Your task to perform on an android device: Do I have any events this weekend? Image 0: 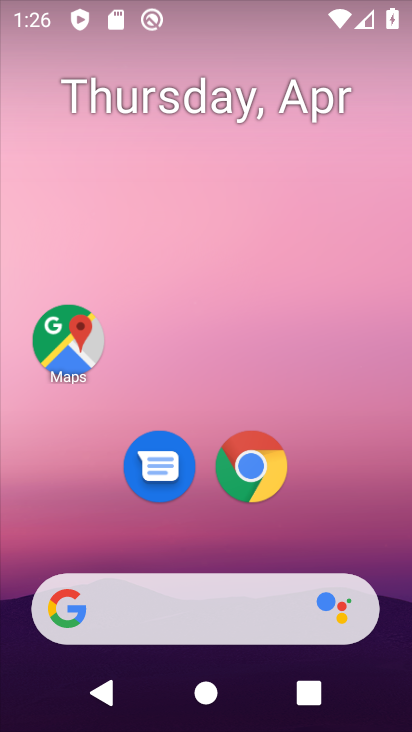
Step 0: drag from (363, 542) to (289, 49)
Your task to perform on an android device: Do I have any events this weekend? Image 1: 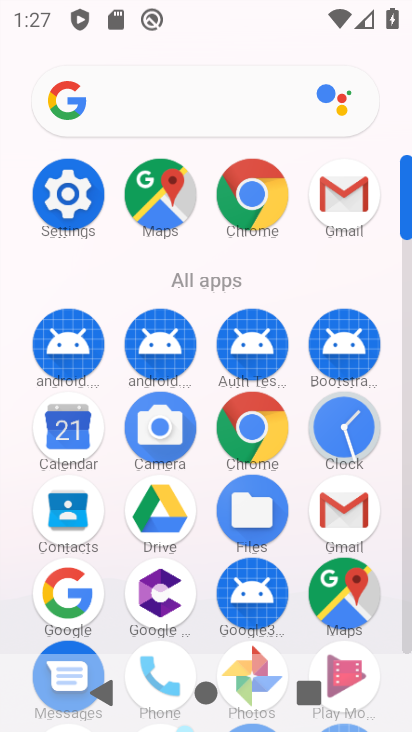
Step 1: click (72, 421)
Your task to perform on an android device: Do I have any events this weekend? Image 2: 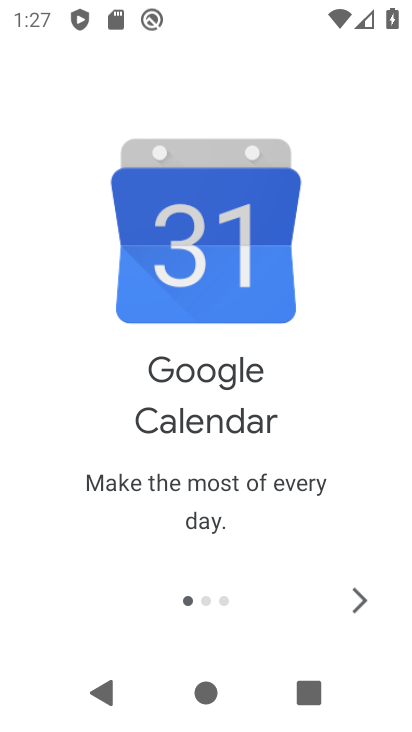
Step 2: click (349, 598)
Your task to perform on an android device: Do I have any events this weekend? Image 3: 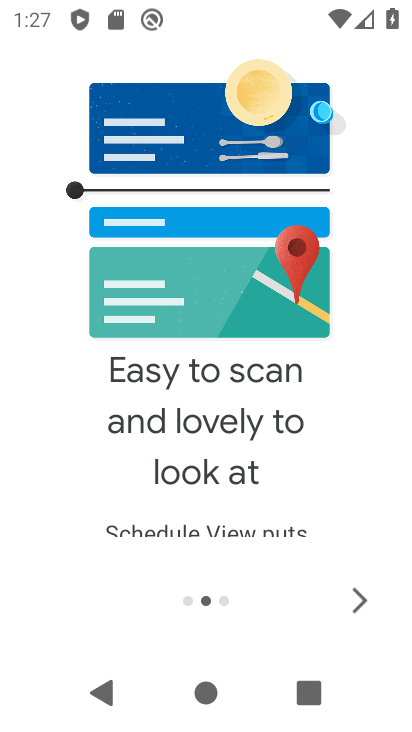
Step 3: click (357, 600)
Your task to perform on an android device: Do I have any events this weekend? Image 4: 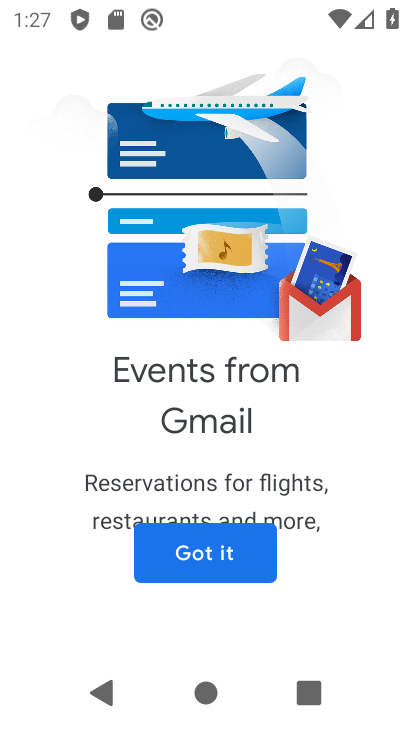
Step 4: click (203, 543)
Your task to perform on an android device: Do I have any events this weekend? Image 5: 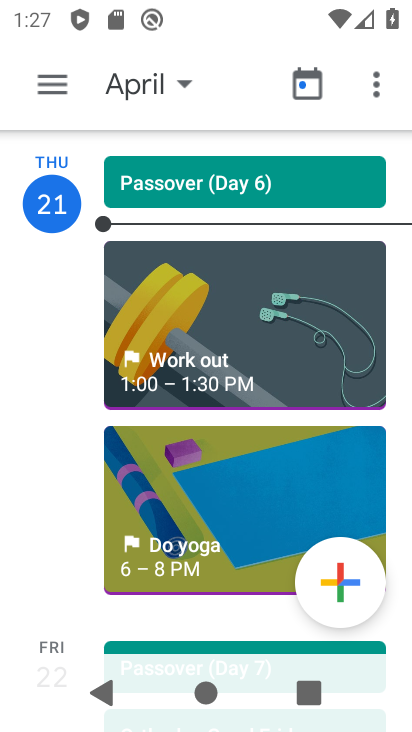
Step 5: click (56, 78)
Your task to perform on an android device: Do I have any events this weekend? Image 6: 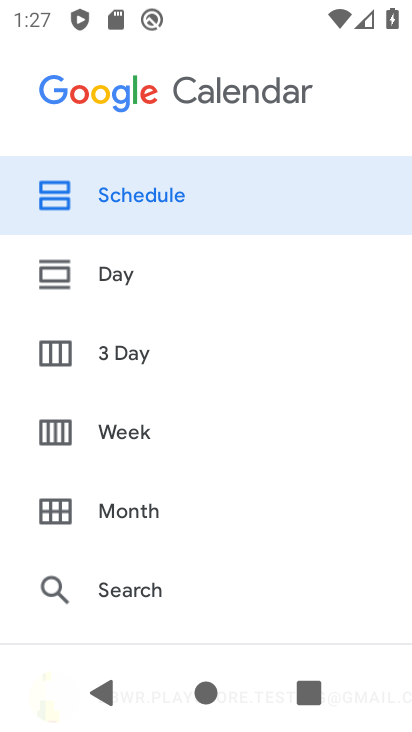
Step 6: drag from (209, 501) to (225, 152)
Your task to perform on an android device: Do I have any events this weekend? Image 7: 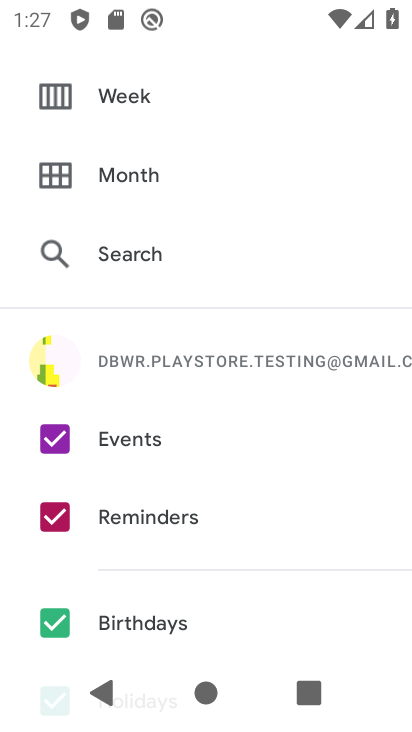
Step 7: drag from (225, 152) to (260, 71)
Your task to perform on an android device: Do I have any events this weekend? Image 8: 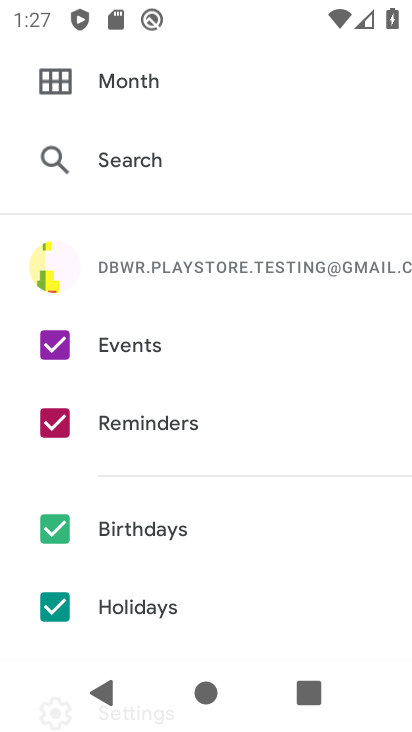
Step 8: click (51, 611)
Your task to perform on an android device: Do I have any events this weekend? Image 9: 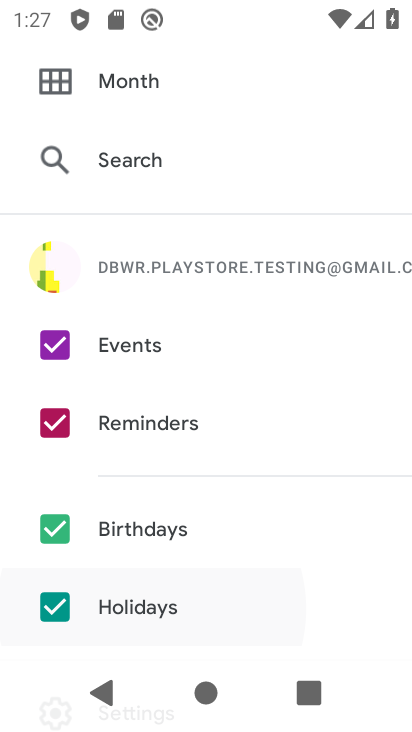
Step 9: click (49, 529)
Your task to perform on an android device: Do I have any events this weekend? Image 10: 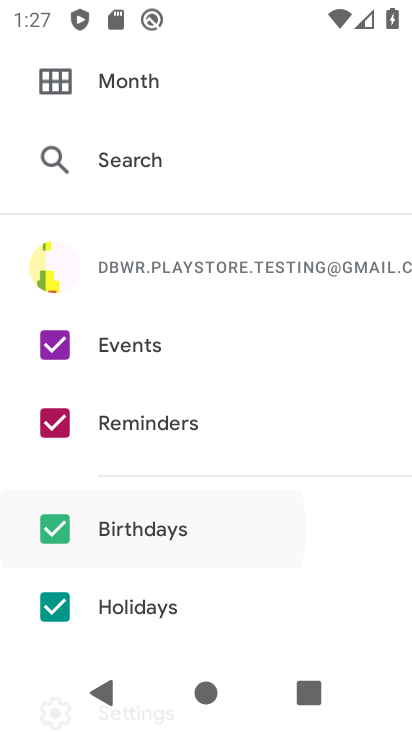
Step 10: click (57, 429)
Your task to perform on an android device: Do I have any events this weekend? Image 11: 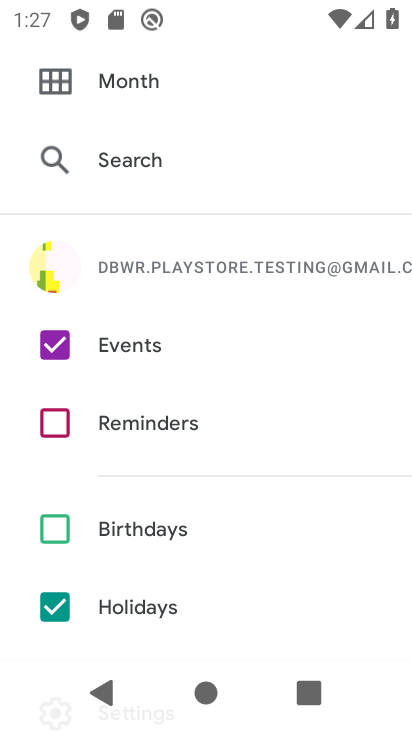
Step 11: click (45, 616)
Your task to perform on an android device: Do I have any events this weekend? Image 12: 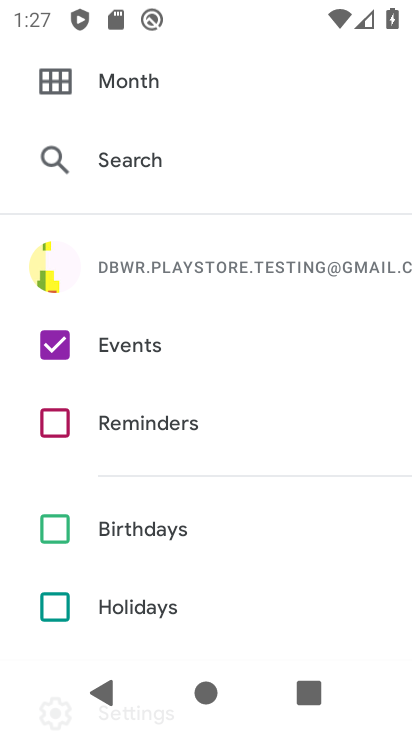
Step 12: drag from (265, 321) to (233, 608)
Your task to perform on an android device: Do I have any events this weekend? Image 13: 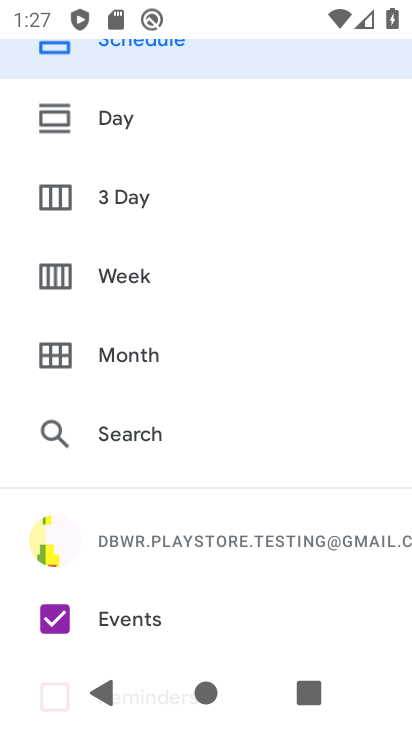
Step 13: drag from (231, 308) to (223, 586)
Your task to perform on an android device: Do I have any events this weekend? Image 14: 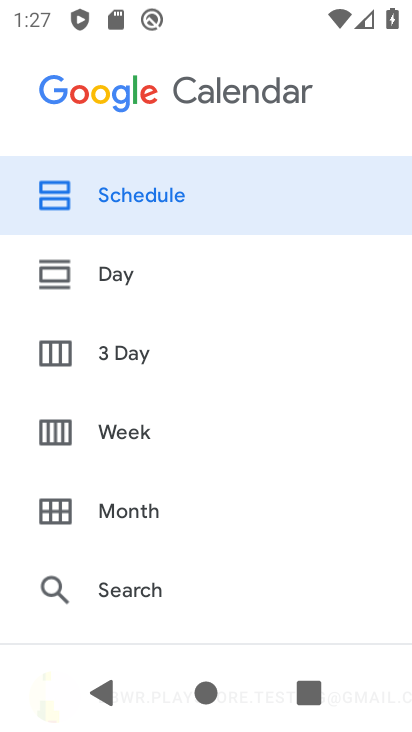
Step 14: click (171, 199)
Your task to perform on an android device: Do I have any events this weekend? Image 15: 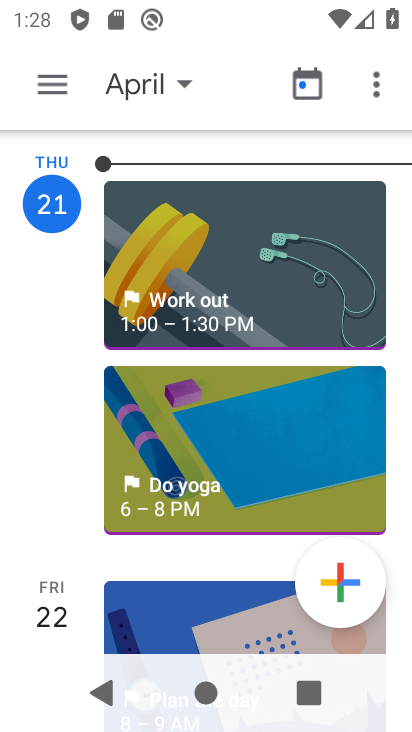
Step 15: drag from (211, 507) to (206, 215)
Your task to perform on an android device: Do I have any events this weekend? Image 16: 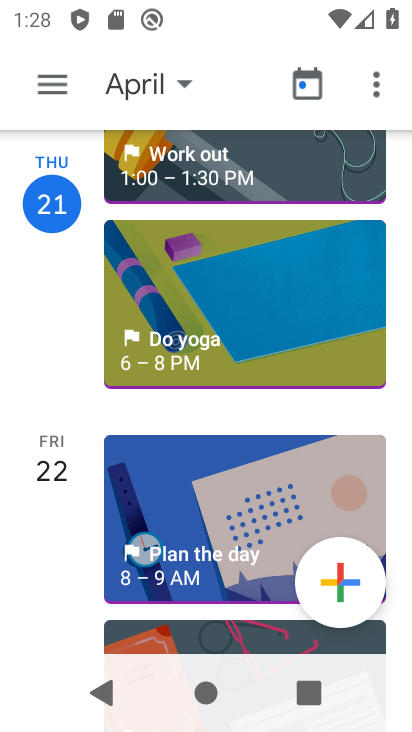
Step 16: drag from (234, 454) to (232, 188)
Your task to perform on an android device: Do I have any events this weekend? Image 17: 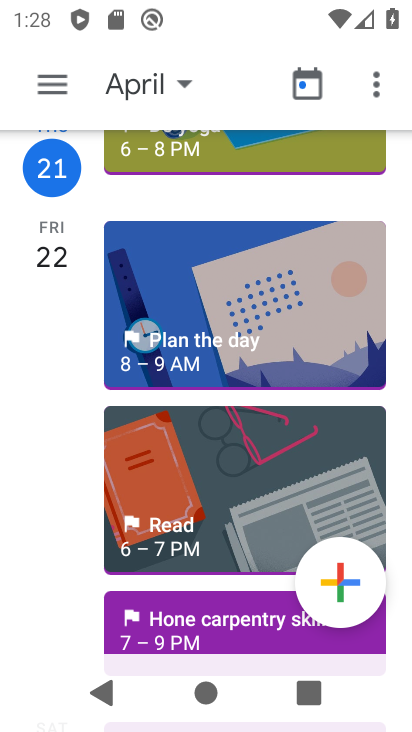
Step 17: drag from (208, 403) to (210, 224)
Your task to perform on an android device: Do I have any events this weekend? Image 18: 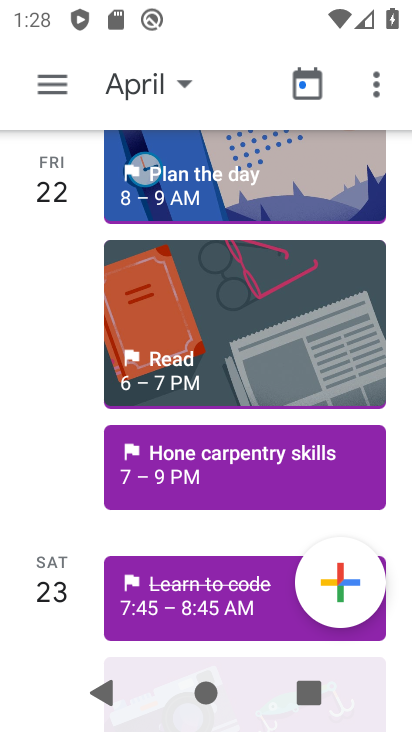
Step 18: drag from (182, 497) to (207, 205)
Your task to perform on an android device: Do I have any events this weekend? Image 19: 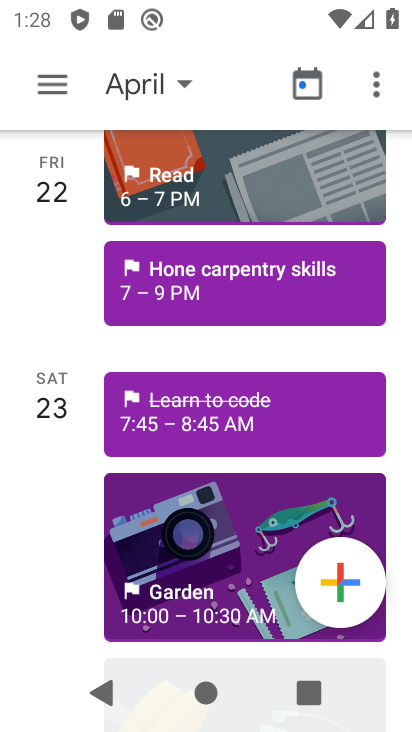
Step 19: click (52, 87)
Your task to perform on an android device: Do I have any events this weekend? Image 20: 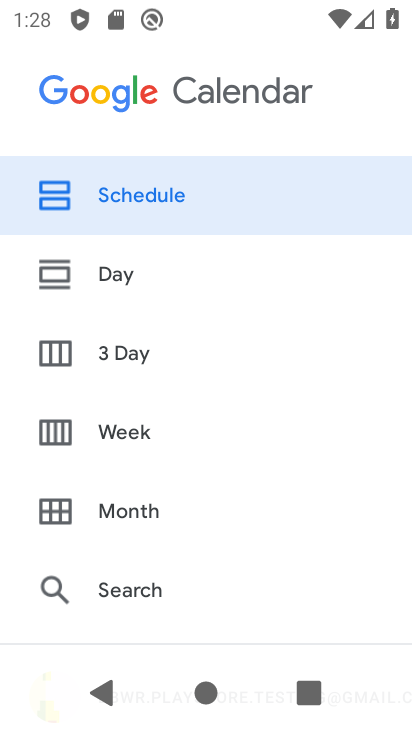
Step 20: click (135, 418)
Your task to perform on an android device: Do I have any events this weekend? Image 21: 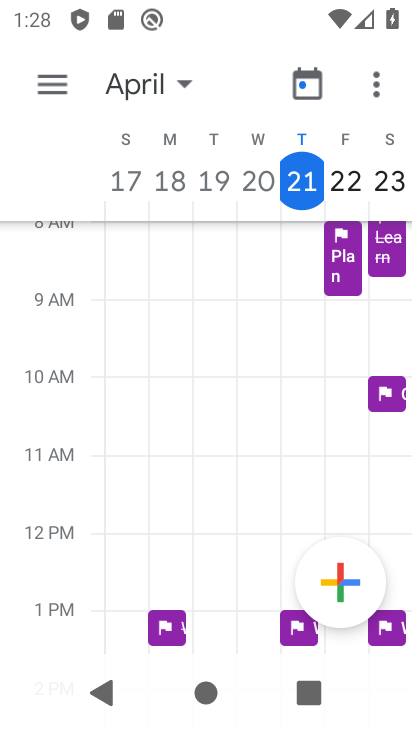
Step 21: task complete